Your task to perform on an android device: Go to privacy settings Image 0: 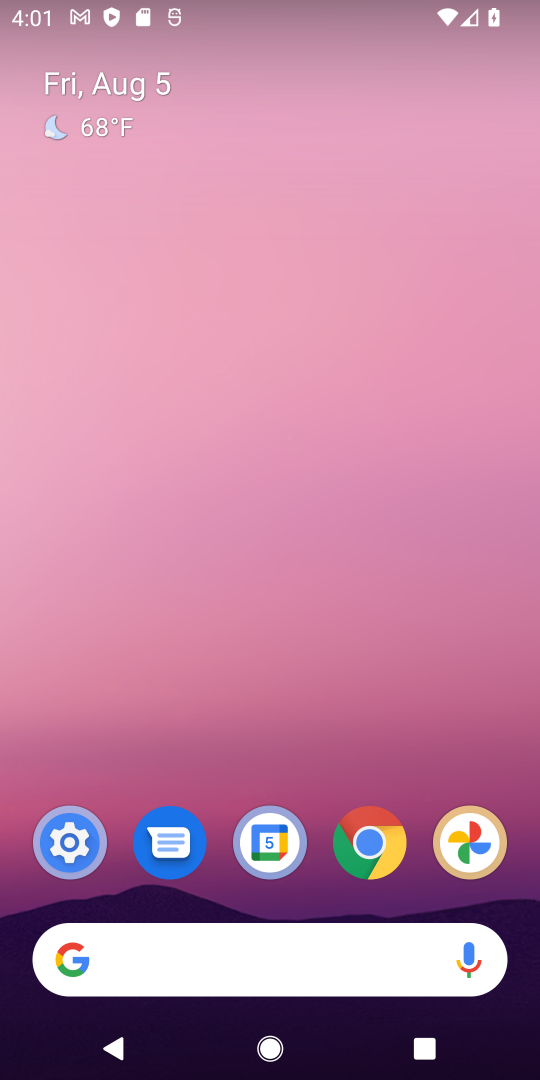
Step 0: click (61, 826)
Your task to perform on an android device: Go to privacy settings Image 1: 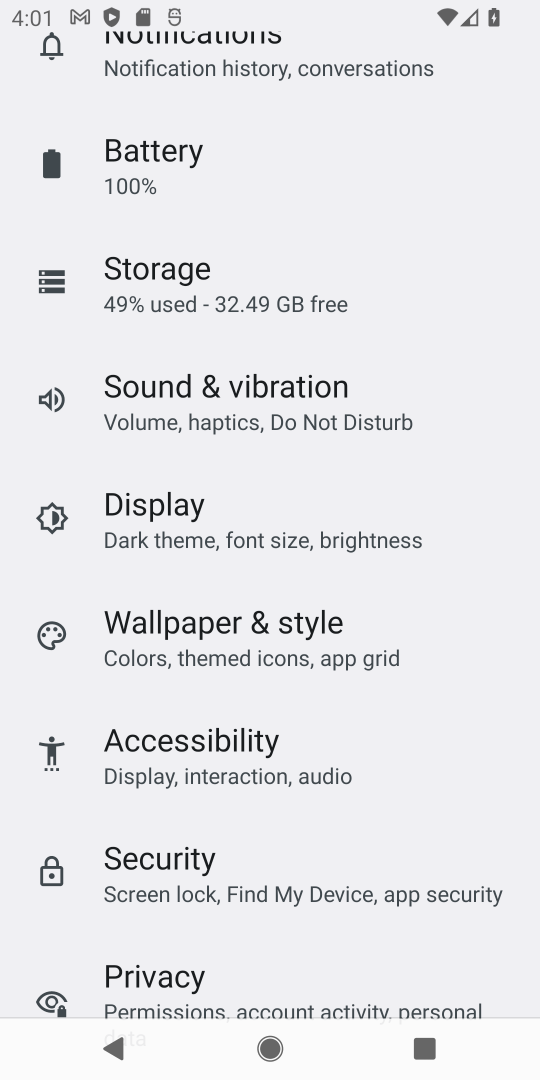
Step 1: click (289, 981)
Your task to perform on an android device: Go to privacy settings Image 2: 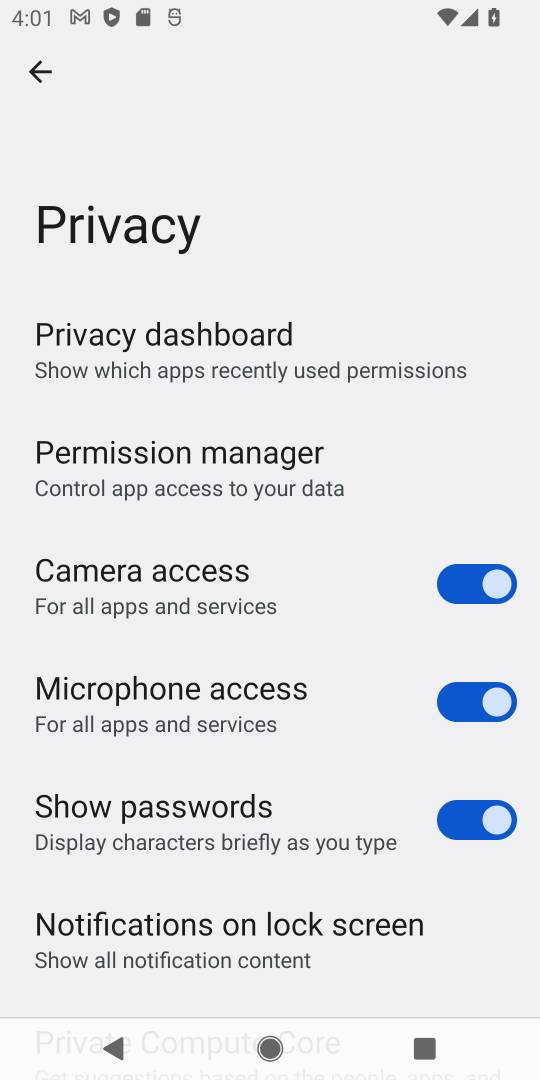
Step 2: task complete